Your task to perform on an android device: open chrome and create a bookmark for the current page Image 0: 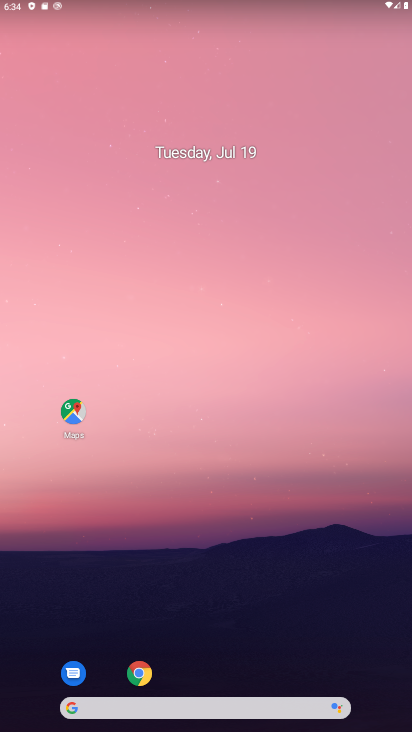
Step 0: drag from (381, 703) to (260, 42)
Your task to perform on an android device: open chrome and create a bookmark for the current page Image 1: 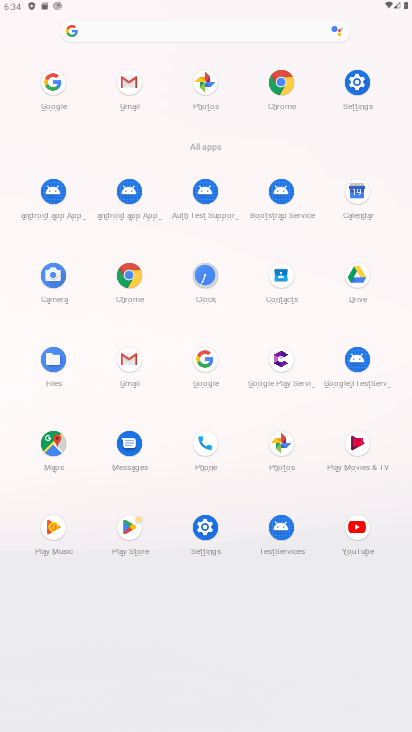
Step 1: click (129, 287)
Your task to perform on an android device: open chrome and create a bookmark for the current page Image 2: 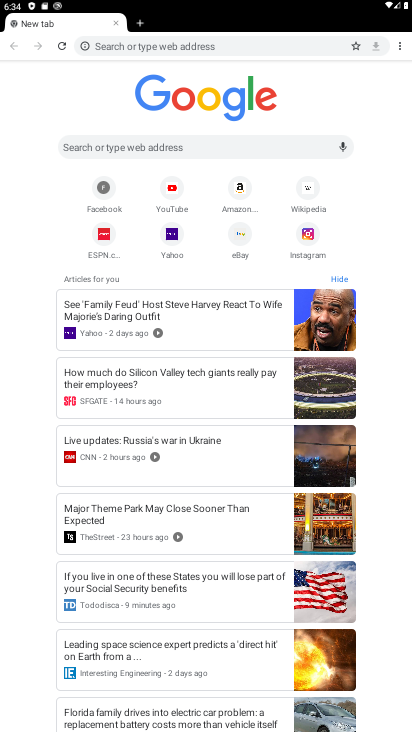
Step 2: click (129, 287)
Your task to perform on an android device: open chrome and create a bookmark for the current page Image 3: 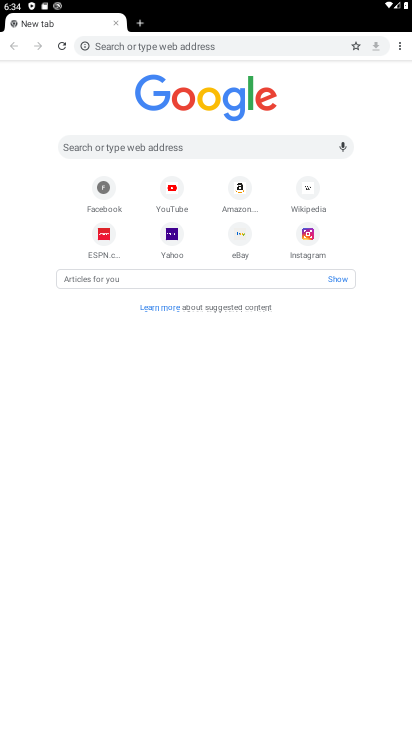
Step 3: click (401, 46)
Your task to perform on an android device: open chrome and create a bookmark for the current page Image 4: 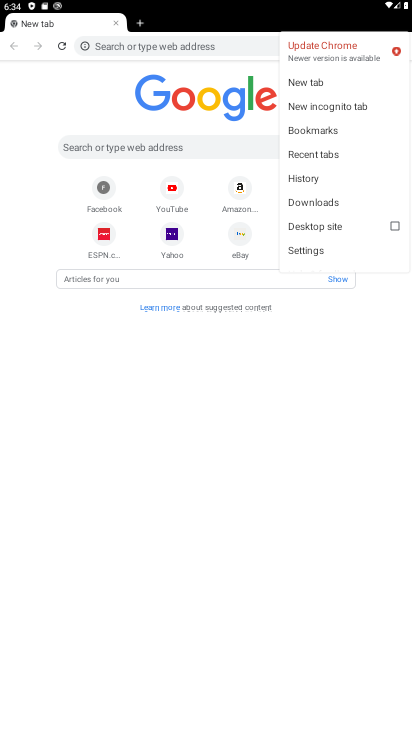
Step 4: click (313, 135)
Your task to perform on an android device: open chrome and create a bookmark for the current page Image 5: 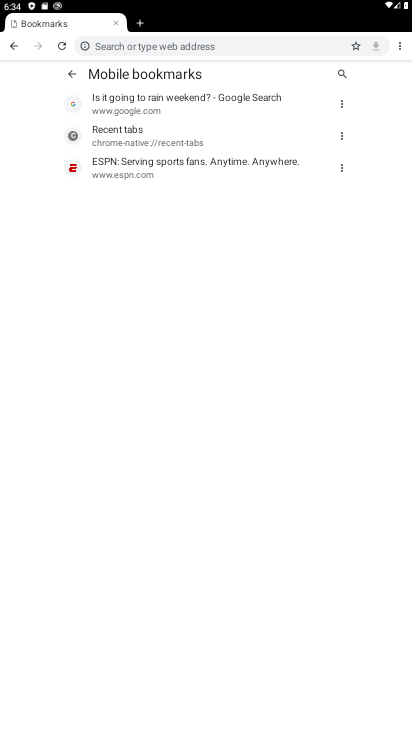
Step 5: task complete